Your task to perform on an android device: When is my next meeting? Image 0: 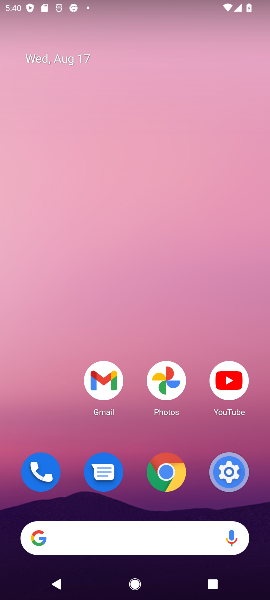
Step 0: click (181, 90)
Your task to perform on an android device: When is my next meeting? Image 1: 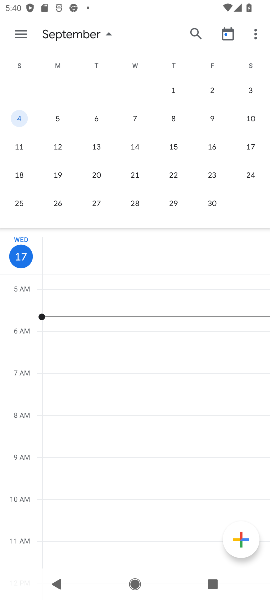
Step 1: click (56, 127)
Your task to perform on an android device: When is my next meeting? Image 2: 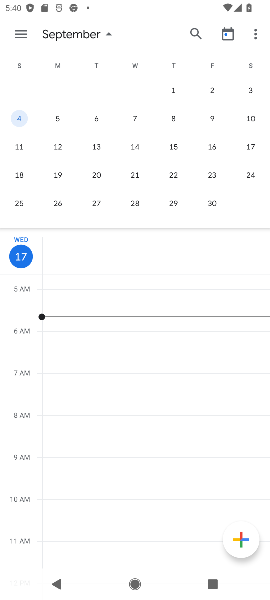
Step 2: click (56, 127)
Your task to perform on an android device: When is my next meeting? Image 3: 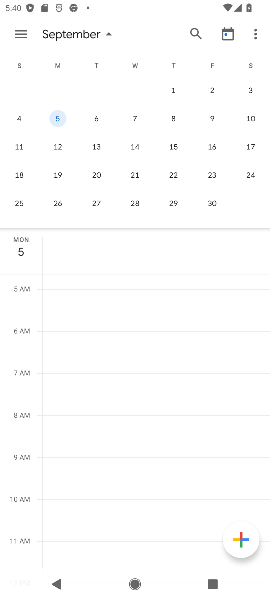
Step 3: click (110, 118)
Your task to perform on an android device: When is my next meeting? Image 4: 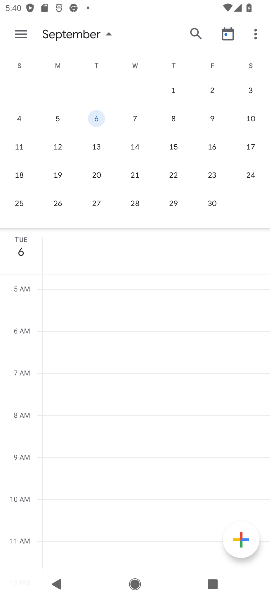
Step 4: drag from (36, 120) to (231, 128)
Your task to perform on an android device: When is my next meeting? Image 5: 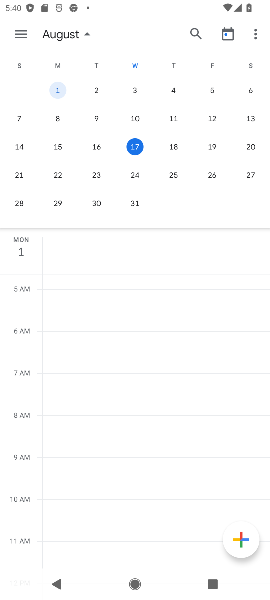
Step 5: click (172, 140)
Your task to perform on an android device: When is my next meeting? Image 6: 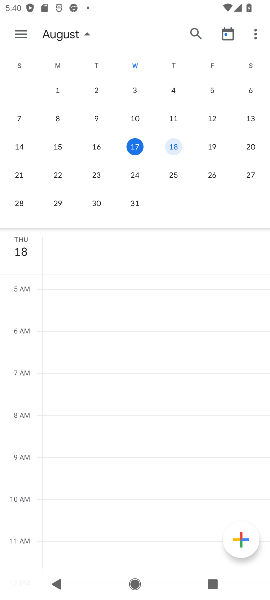
Step 6: click (164, 151)
Your task to perform on an android device: When is my next meeting? Image 7: 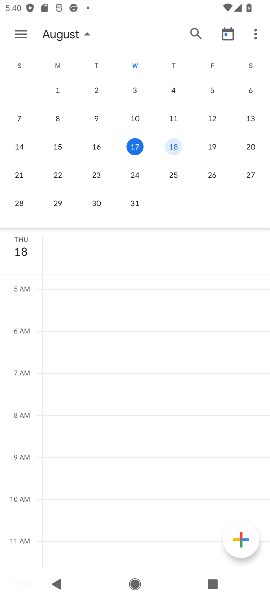
Step 7: click (22, 34)
Your task to perform on an android device: When is my next meeting? Image 8: 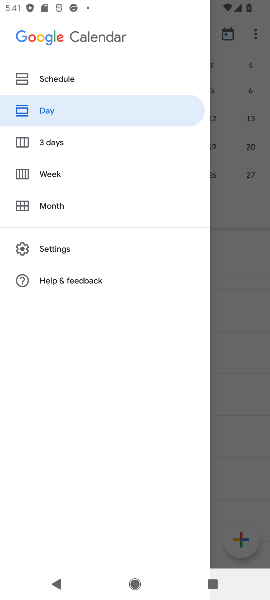
Step 8: click (54, 83)
Your task to perform on an android device: When is my next meeting? Image 9: 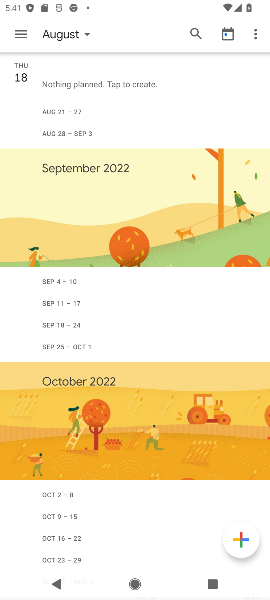
Step 9: task complete